Your task to perform on an android device: change timer sound Image 0: 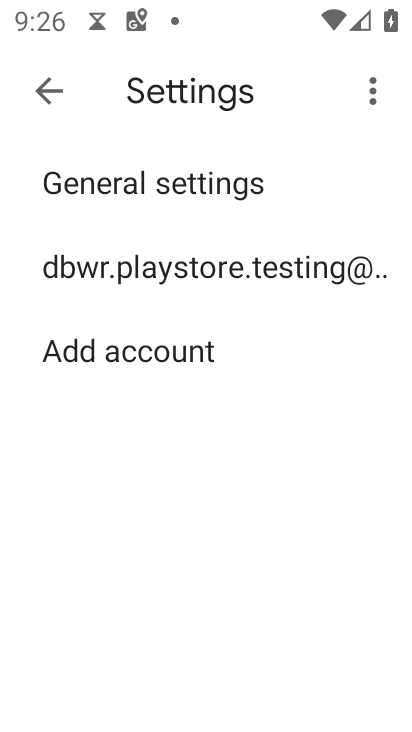
Step 0: click (48, 91)
Your task to perform on an android device: change timer sound Image 1: 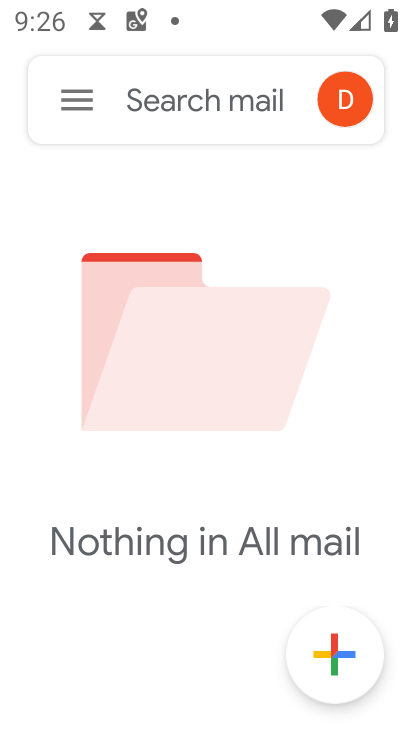
Step 1: press back button
Your task to perform on an android device: change timer sound Image 2: 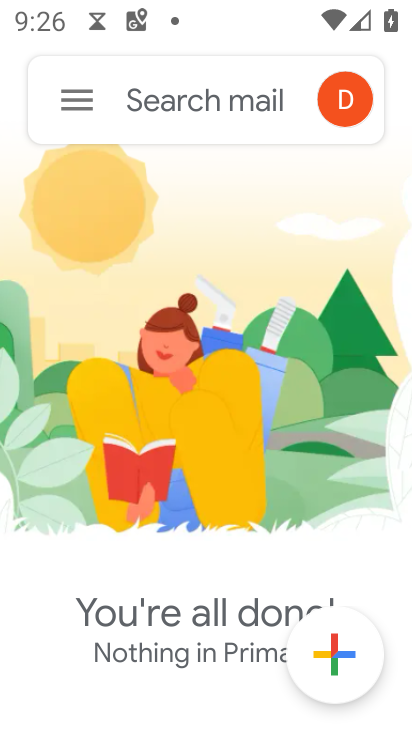
Step 2: press home button
Your task to perform on an android device: change timer sound Image 3: 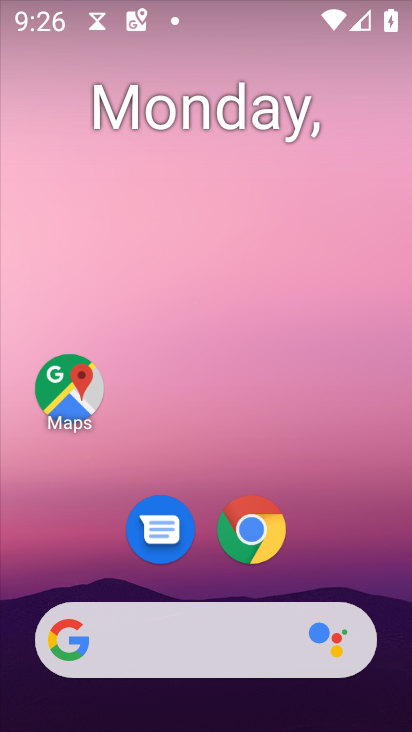
Step 3: drag from (266, 720) to (222, 6)
Your task to perform on an android device: change timer sound Image 4: 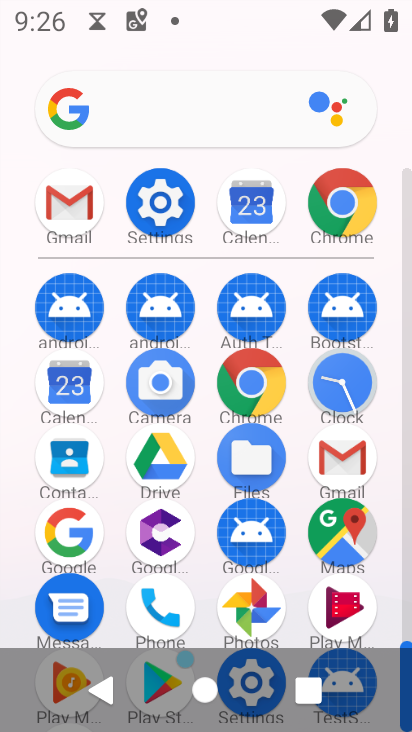
Step 4: click (336, 383)
Your task to perform on an android device: change timer sound Image 5: 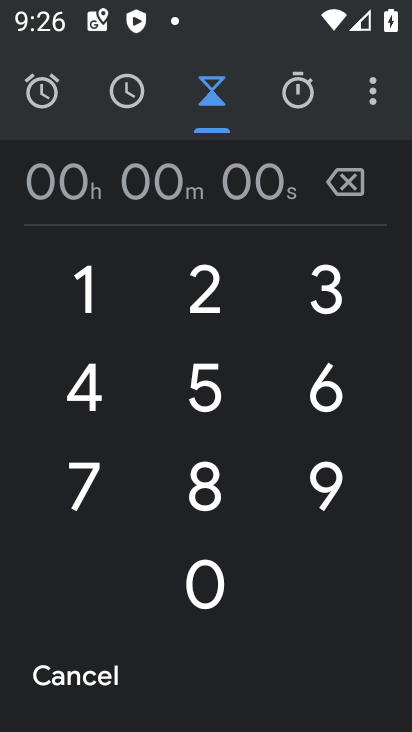
Step 5: click (371, 94)
Your task to perform on an android device: change timer sound Image 6: 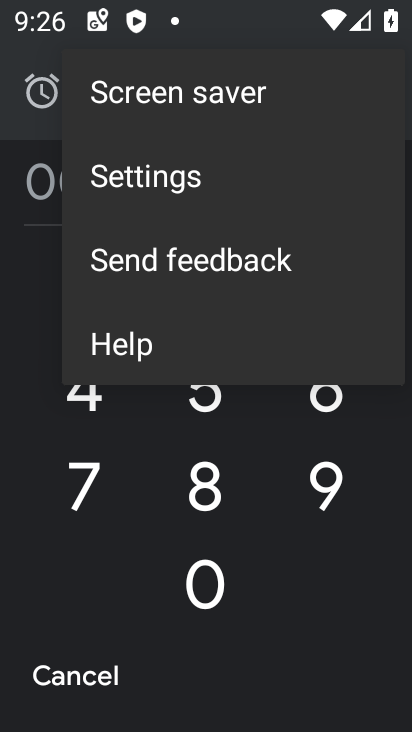
Step 6: click (145, 172)
Your task to perform on an android device: change timer sound Image 7: 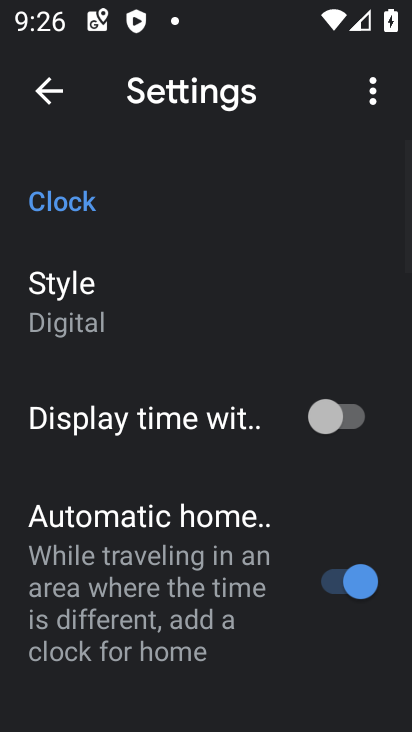
Step 7: drag from (210, 574) to (156, 133)
Your task to perform on an android device: change timer sound Image 8: 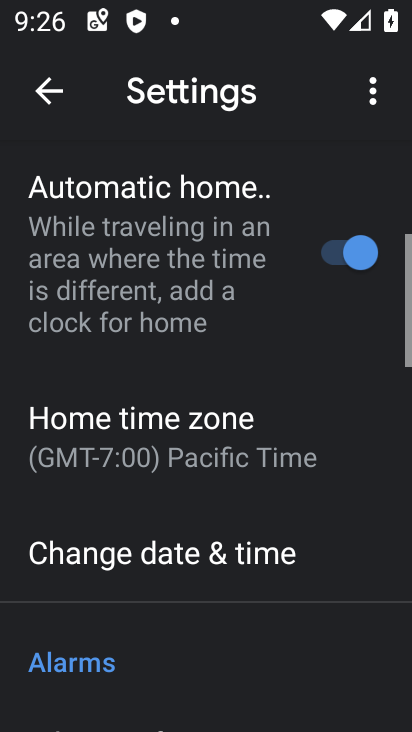
Step 8: drag from (193, 489) to (135, 211)
Your task to perform on an android device: change timer sound Image 9: 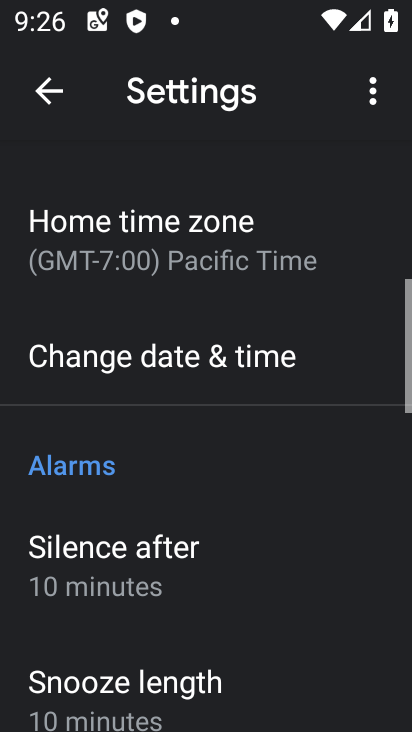
Step 9: drag from (211, 507) to (175, 292)
Your task to perform on an android device: change timer sound Image 10: 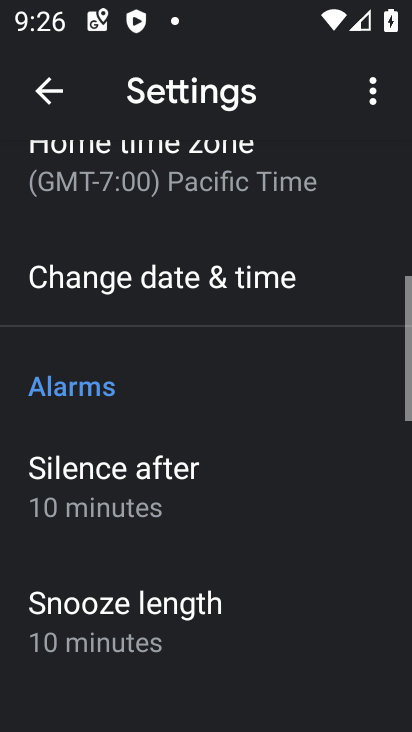
Step 10: drag from (220, 490) to (221, 224)
Your task to perform on an android device: change timer sound Image 11: 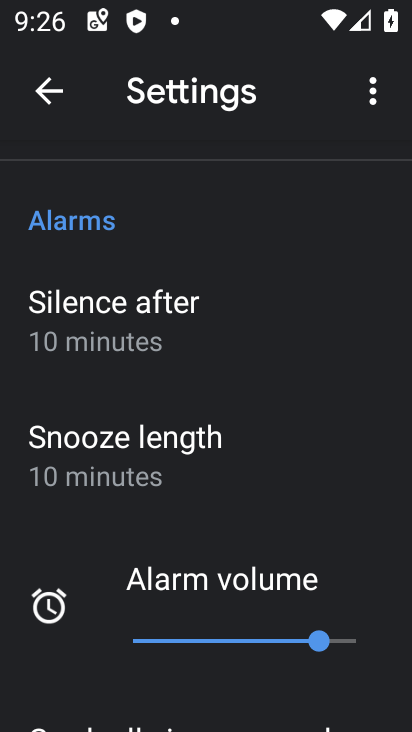
Step 11: drag from (163, 498) to (100, 252)
Your task to perform on an android device: change timer sound Image 12: 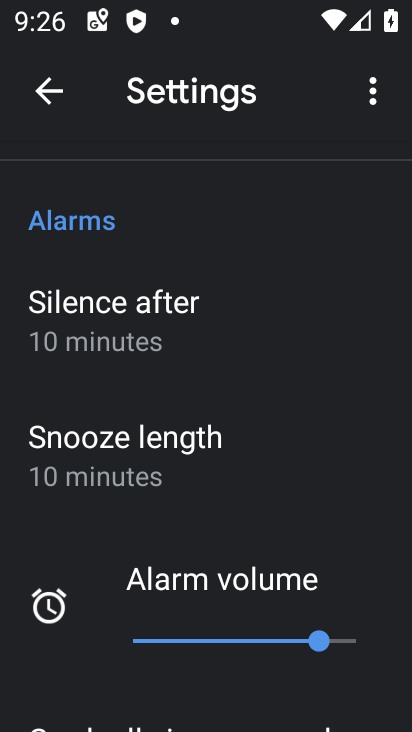
Step 12: drag from (204, 253) to (193, 177)
Your task to perform on an android device: change timer sound Image 13: 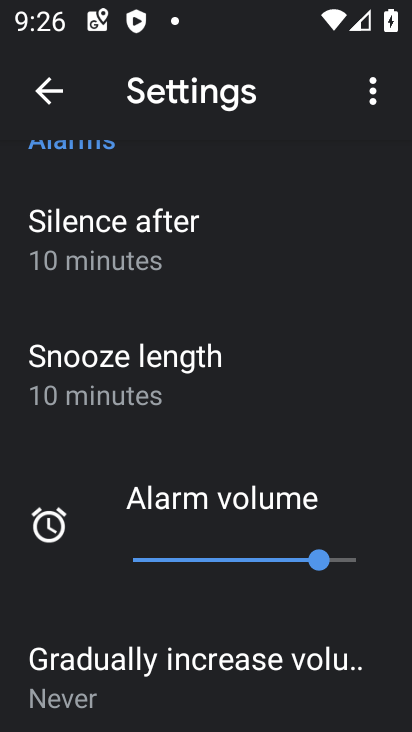
Step 13: drag from (160, 530) to (160, 141)
Your task to perform on an android device: change timer sound Image 14: 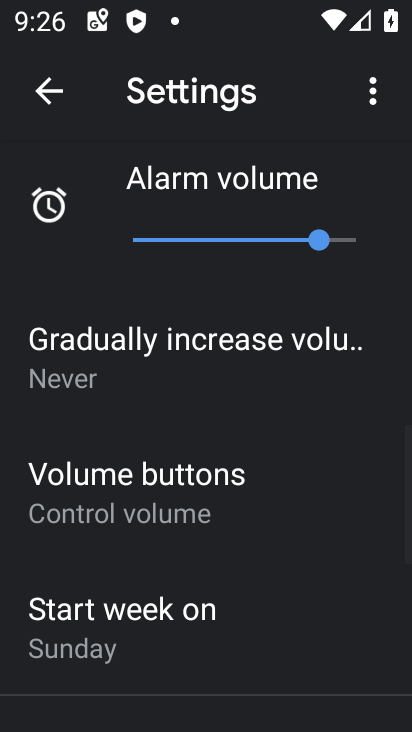
Step 14: click (199, 257)
Your task to perform on an android device: change timer sound Image 15: 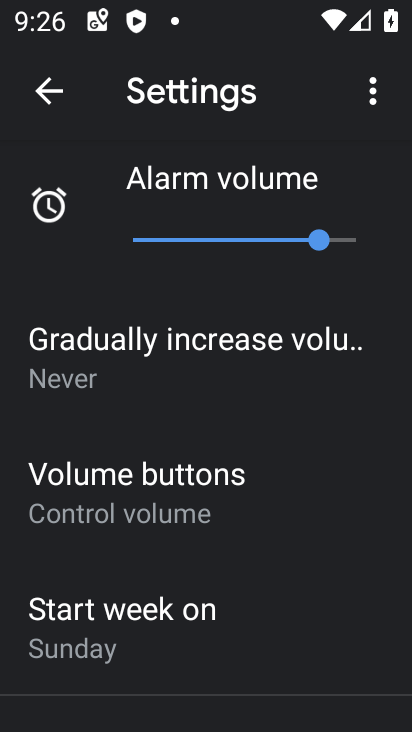
Step 15: drag from (195, 516) to (186, 219)
Your task to perform on an android device: change timer sound Image 16: 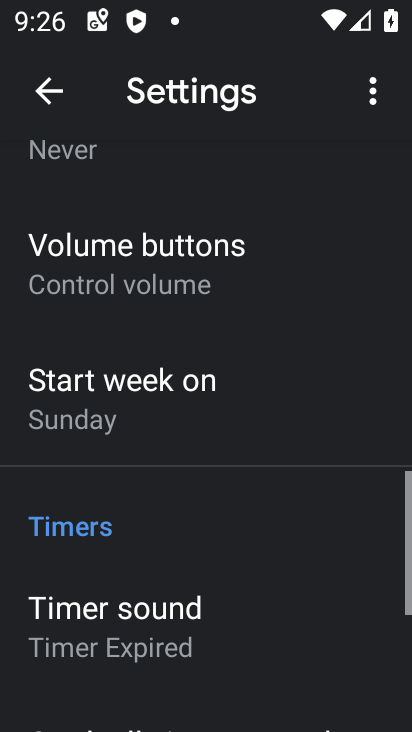
Step 16: drag from (232, 539) to (258, 215)
Your task to perform on an android device: change timer sound Image 17: 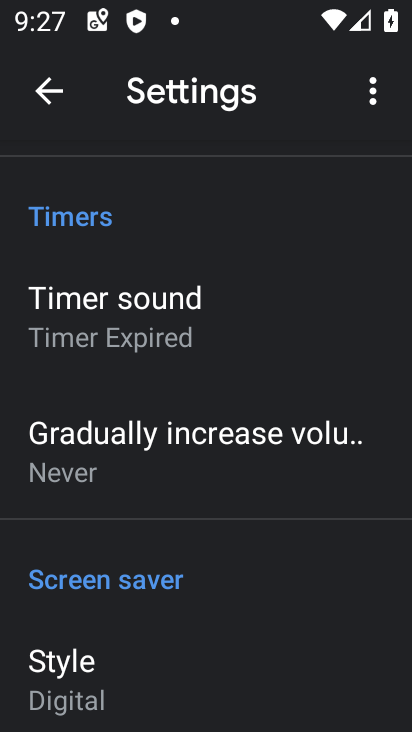
Step 17: click (128, 333)
Your task to perform on an android device: change timer sound Image 18: 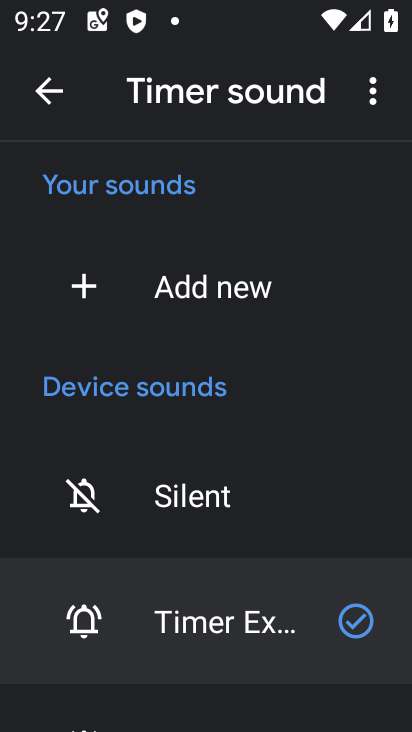
Step 18: drag from (229, 490) to (211, 124)
Your task to perform on an android device: change timer sound Image 19: 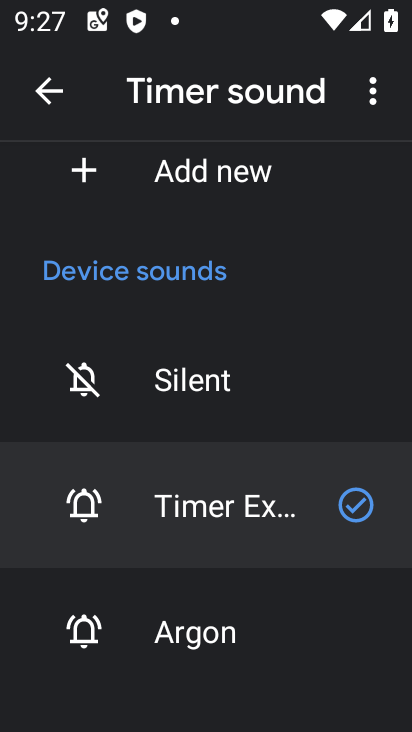
Step 19: click (93, 619)
Your task to perform on an android device: change timer sound Image 20: 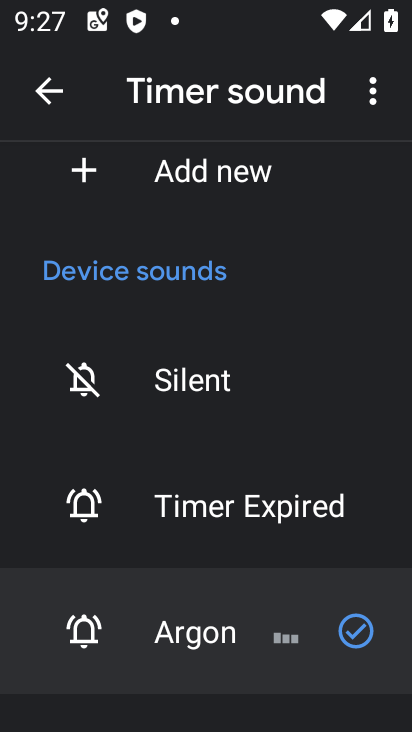
Step 20: task complete